Your task to perform on an android device: Do I have any events tomorrow? Image 0: 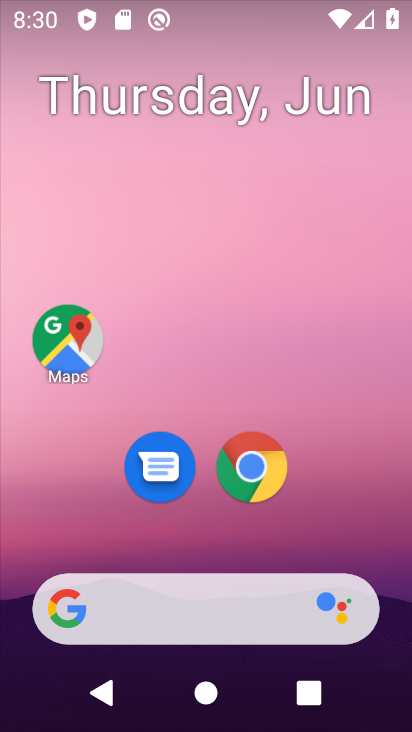
Step 0: drag from (385, 541) to (263, 13)
Your task to perform on an android device: Do I have any events tomorrow? Image 1: 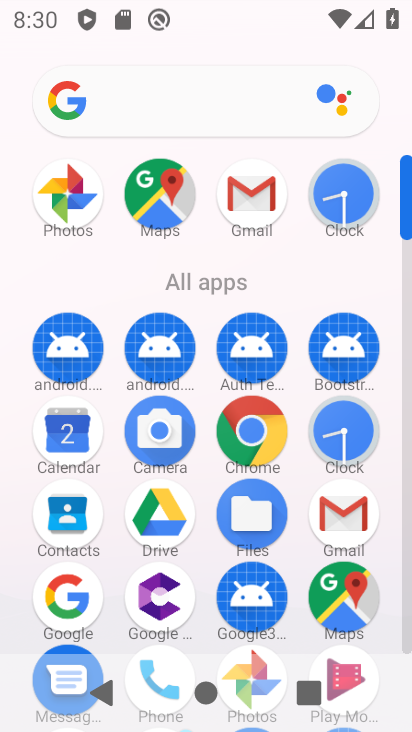
Step 1: click (78, 454)
Your task to perform on an android device: Do I have any events tomorrow? Image 2: 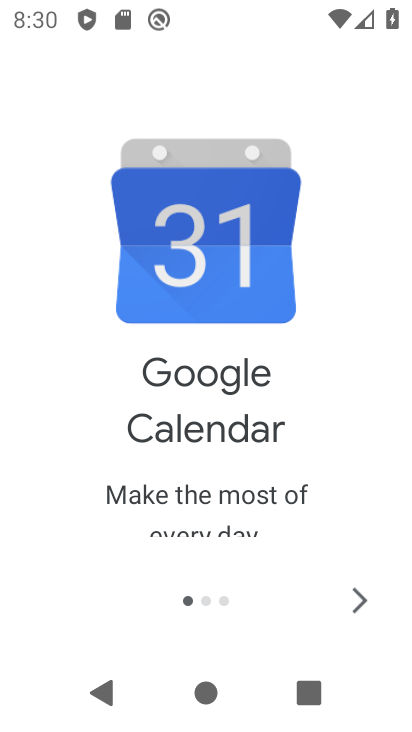
Step 2: click (360, 615)
Your task to perform on an android device: Do I have any events tomorrow? Image 3: 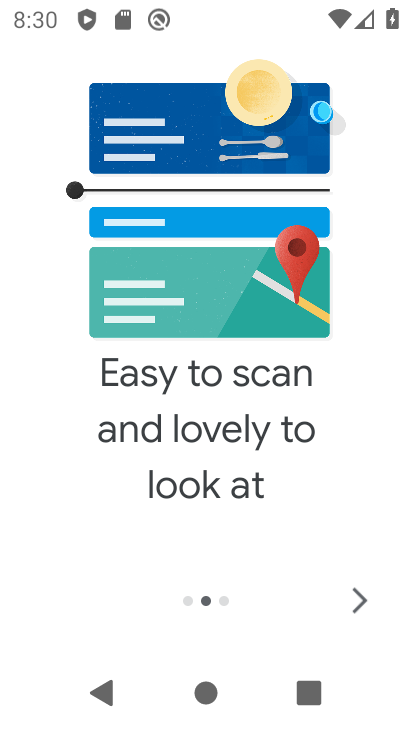
Step 3: click (360, 613)
Your task to perform on an android device: Do I have any events tomorrow? Image 4: 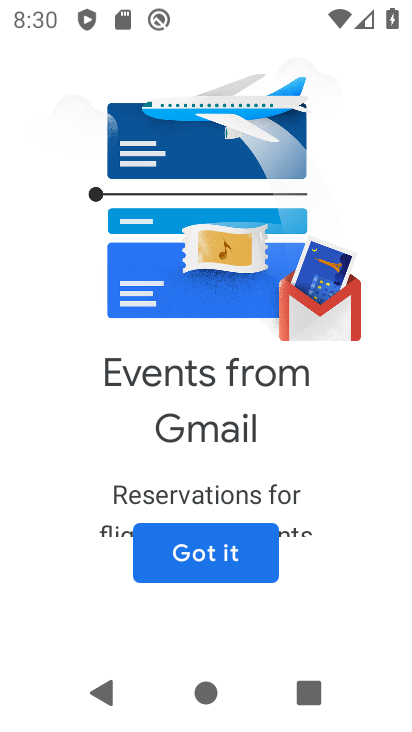
Step 4: click (241, 549)
Your task to perform on an android device: Do I have any events tomorrow? Image 5: 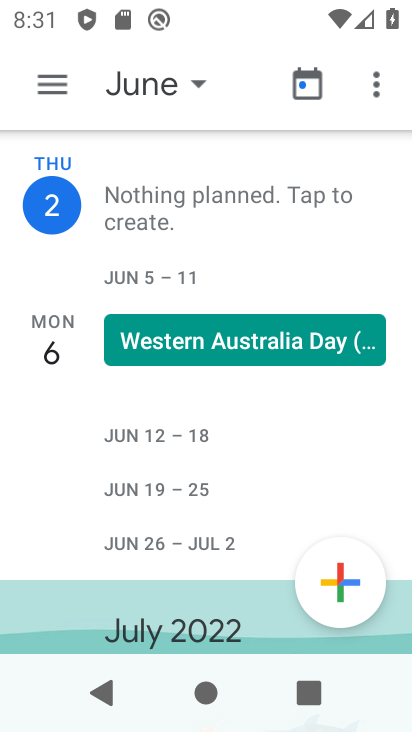
Step 5: click (52, 79)
Your task to perform on an android device: Do I have any events tomorrow? Image 6: 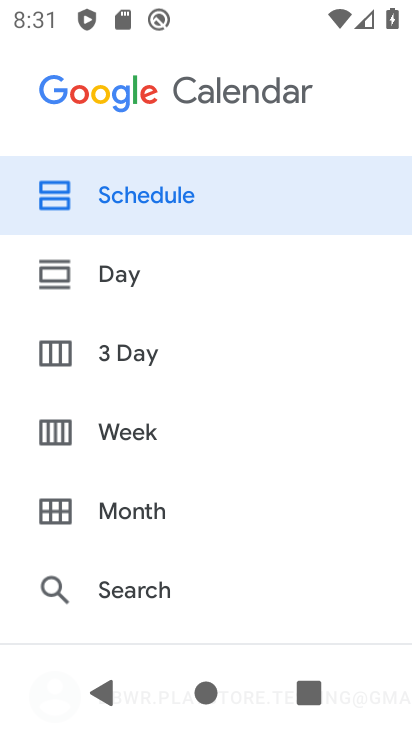
Step 6: drag from (153, 625) to (172, 254)
Your task to perform on an android device: Do I have any events tomorrow? Image 7: 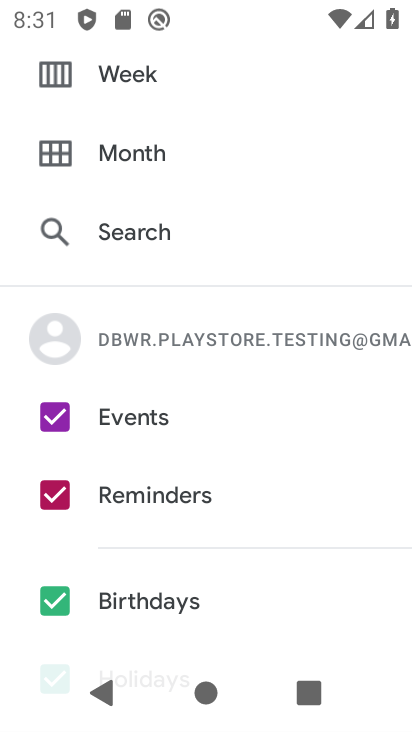
Step 7: drag from (159, 525) to (147, 254)
Your task to perform on an android device: Do I have any events tomorrow? Image 8: 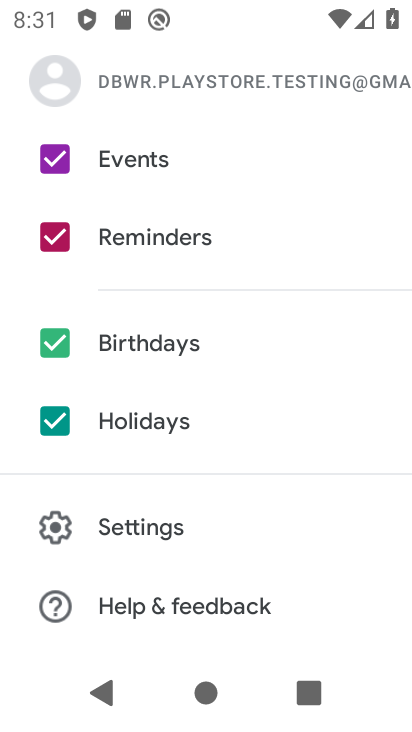
Step 8: click (61, 411)
Your task to perform on an android device: Do I have any events tomorrow? Image 9: 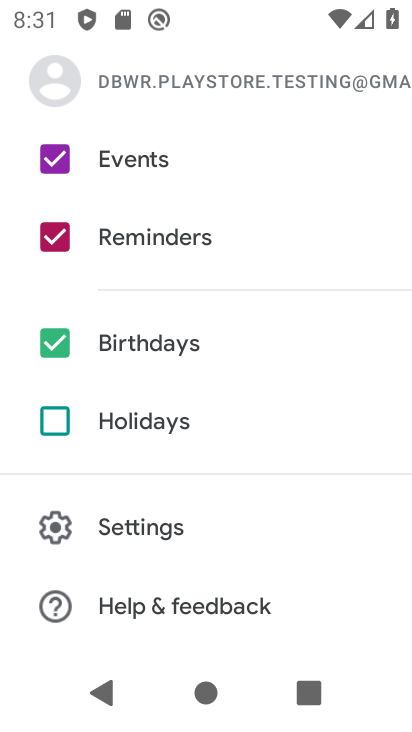
Step 9: click (57, 332)
Your task to perform on an android device: Do I have any events tomorrow? Image 10: 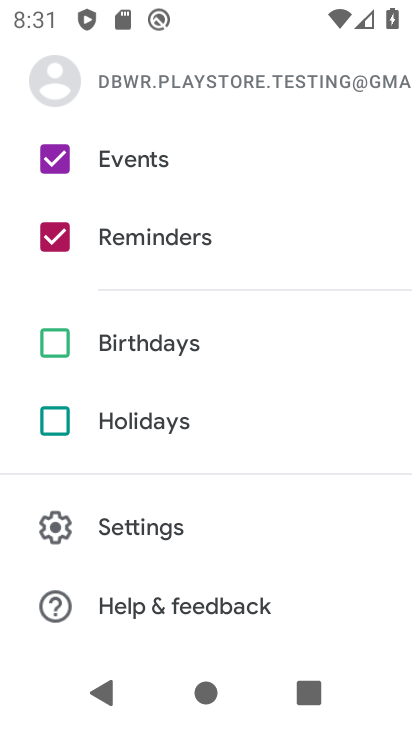
Step 10: click (55, 244)
Your task to perform on an android device: Do I have any events tomorrow? Image 11: 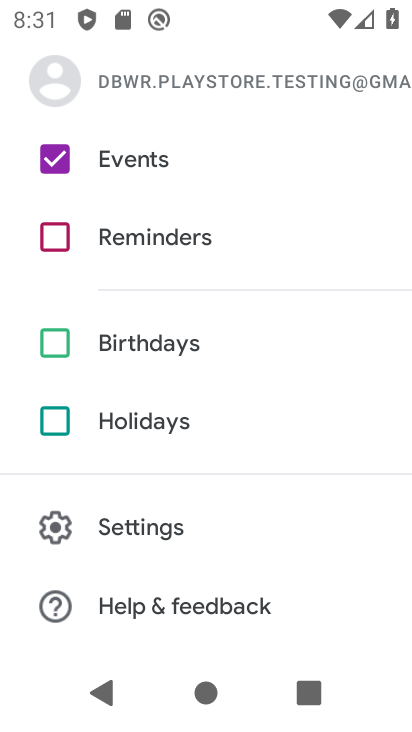
Step 11: drag from (150, 120) to (194, 729)
Your task to perform on an android device: Do I have any events tomorrow? Image 12: 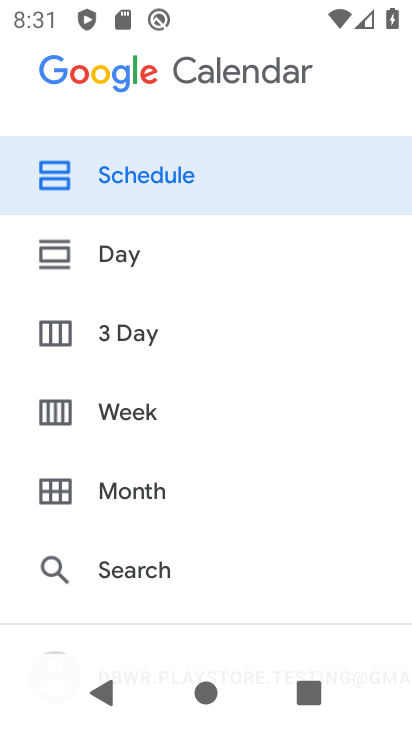
Step 12: click (150, 258)
Your task to perform on an android device: Do I have any events tomorrow? Image 13: 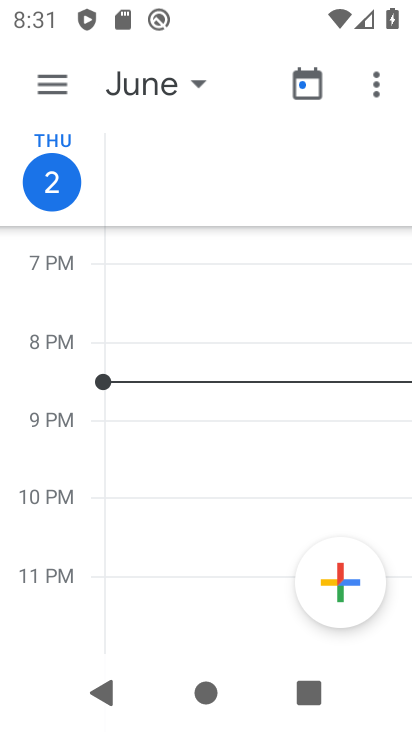
Step 13: click (154, 85)
Your task to perform on an android device: Do I have any events tomorrow? Image 14: 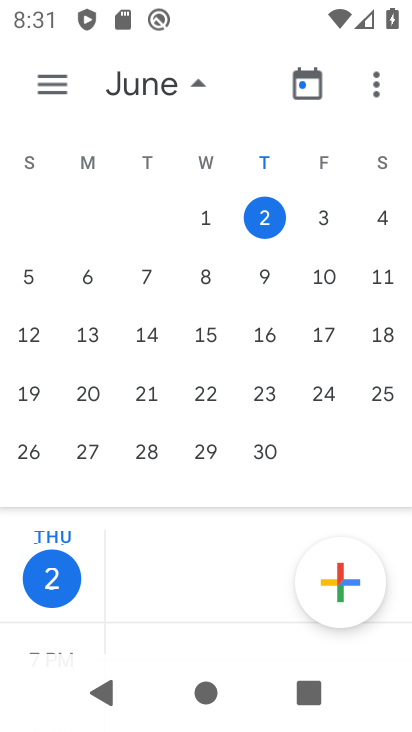
Step 14: click (383, 209)
Your task to perform on an android device: Do I have any events tomorrow? Image 15: 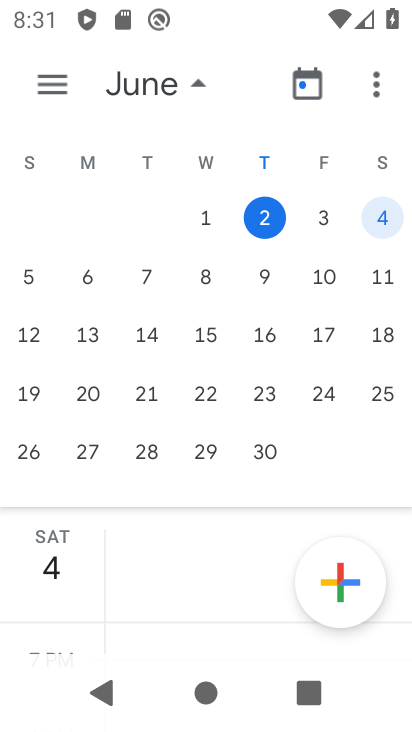
Step 15: click (167, 84)
Your task to perform on an android device: Do I have any events tomorrow? Image 16: 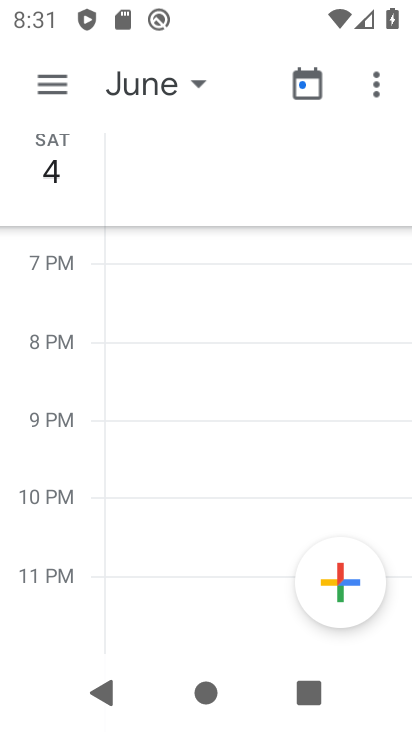
Step 16: task complete